Your task to perform on an android device: all mails in gmail Image 0: 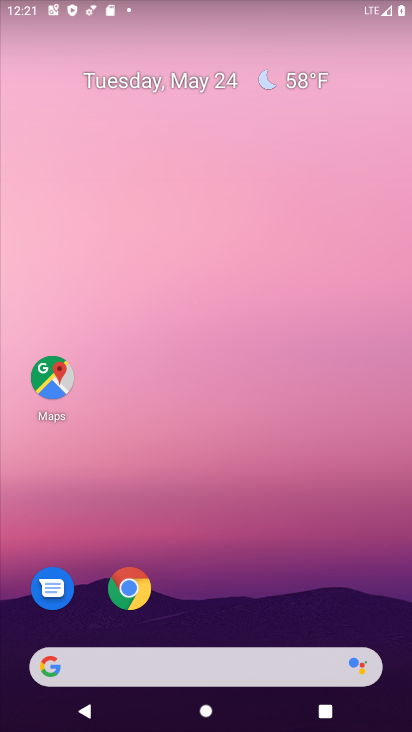
Step 0: drag from (261, 603) to (409, 0)
Your task to perform on an android device: all mails in gmail Image 1: 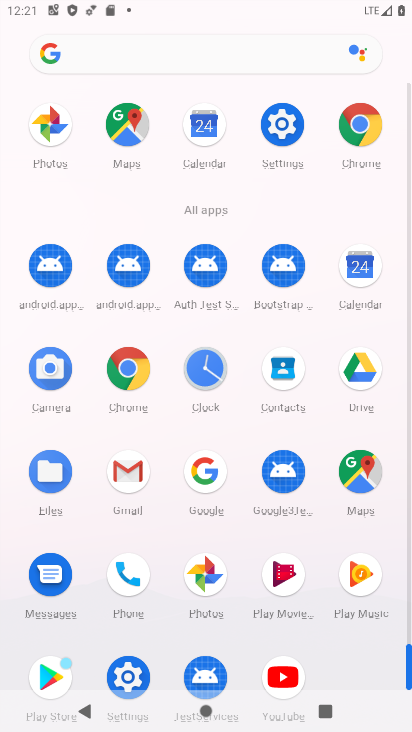
Step 1: click (127, 500)
Your task to perform on an android device: all mails in gmail Image 2: 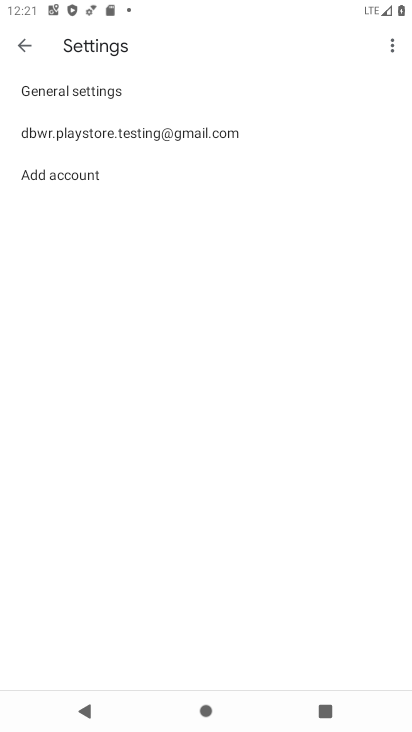
Step 2: click (104, 132)
Your task to perform on an android device: all mails in gmail Image 3: 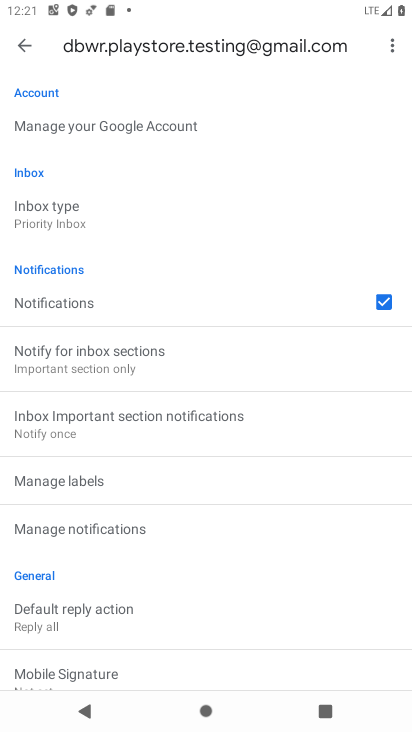
Step 3: click (30, 53)
Your task to perform on an android device: all mails in gmail Image 4: 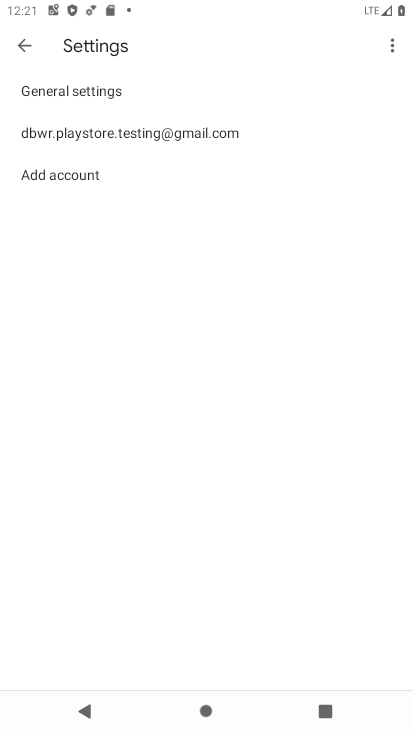
Step 4: click (101, 138)
Your task to perform on an android device: all mails in gmail Image 5: 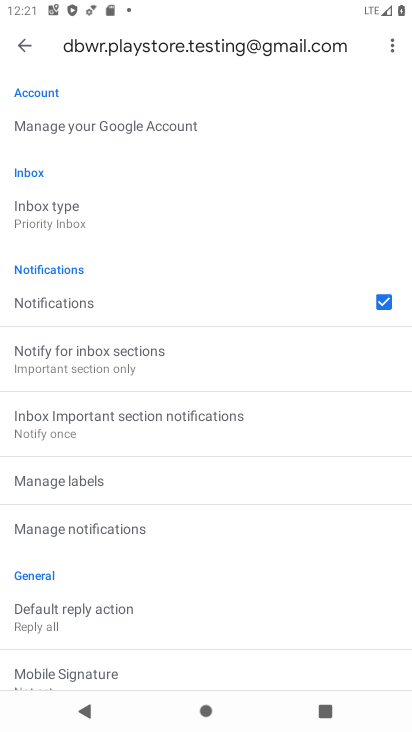
Step 5: click (23, 51)
Your task to perform on an android device: all mails in gmail Image 6: 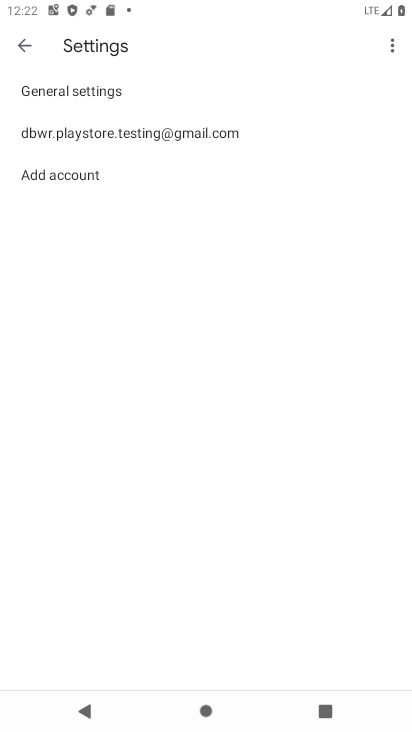
Step 6: click (25, 51)
Your task to perform on an android device: all mails in gmail Image 7: 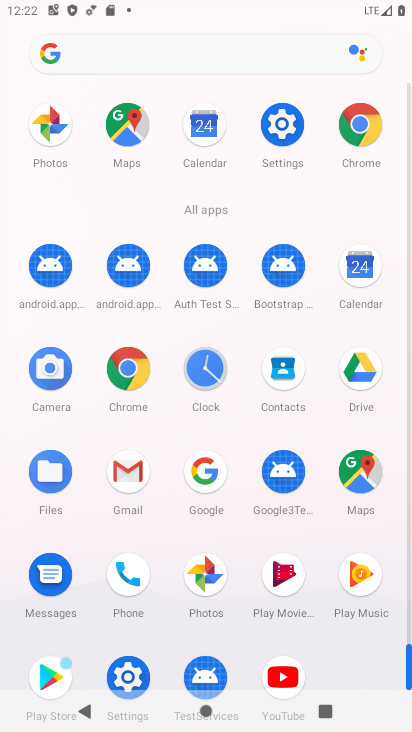
Step 7: click (139, 488)
Your task to perform on an android device: all mails in gmail Image 8: 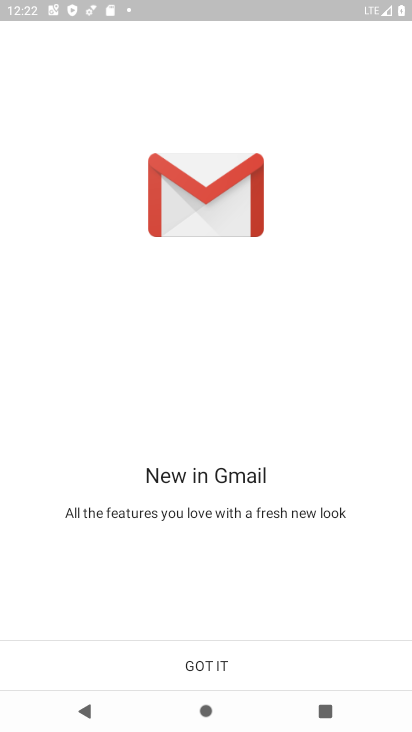
Step 8: click (200, 671)
Your task to perform on an android device: all mails in gmail Image 9: 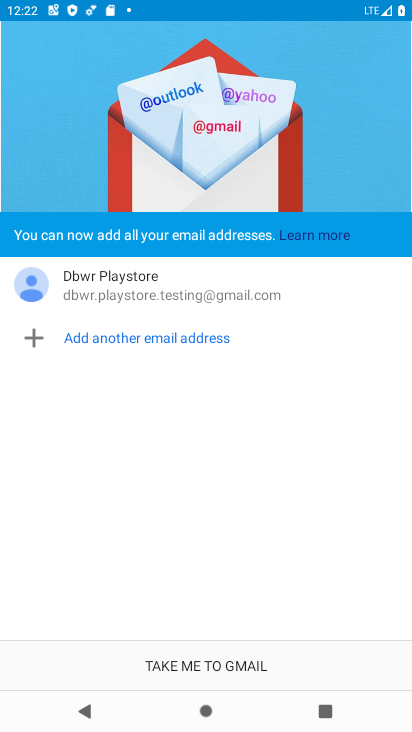
Step 9: click (209, 675)
Your task to perform on an android device: all mails in gmail Image 10: 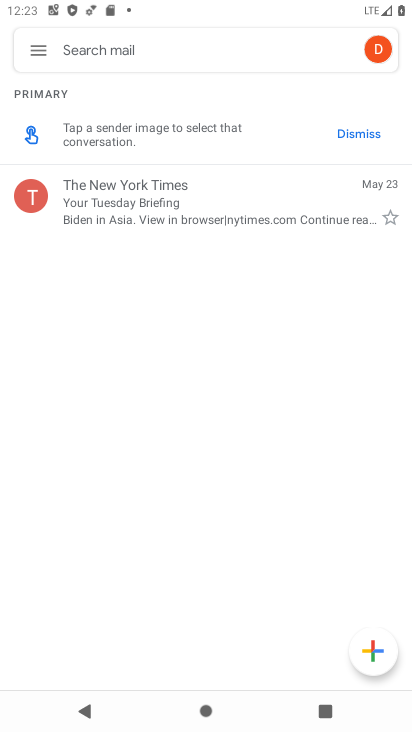
Step 10: click (35, 59)
Your task to perform on an android device: all mails in gmail Image 11: 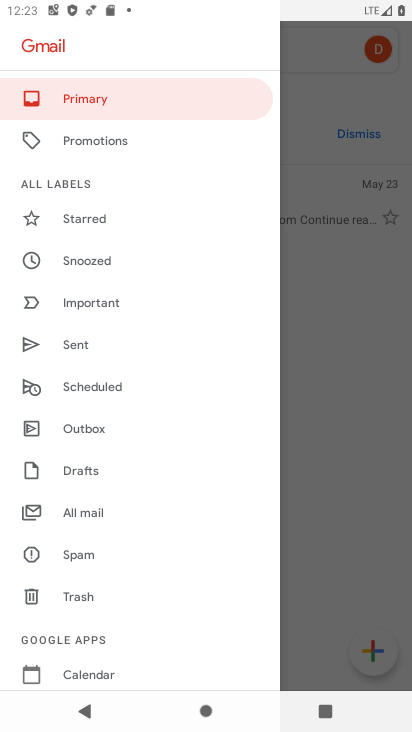
Step 11: click (83, 520)
Your task to perform on an android device: all mails in gmail Image 12: 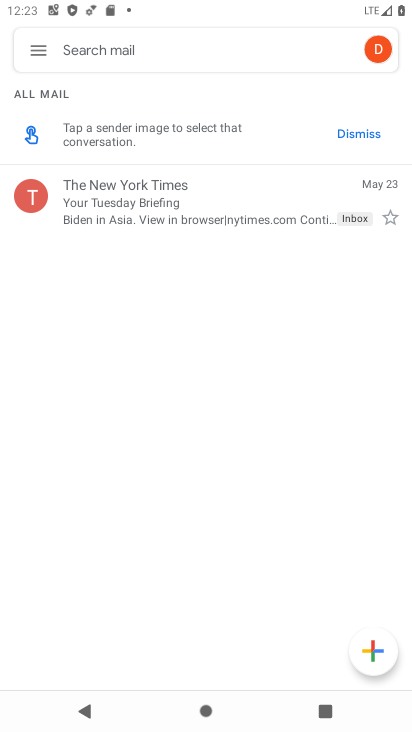
Step 12: task complete